Your task to perform on an android device: Go to CNN.com Image 0: 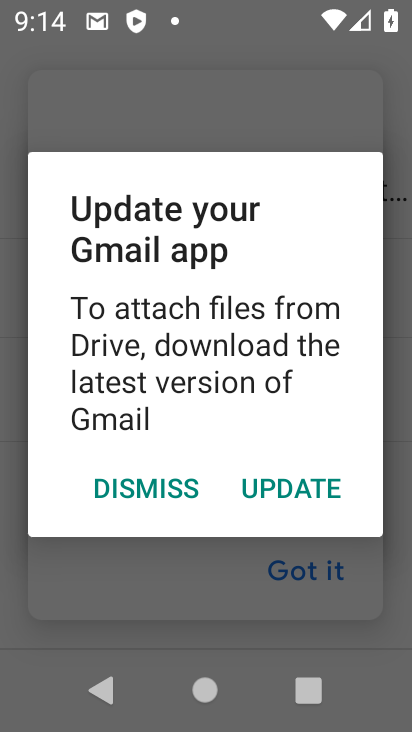
Step 0: press home button
Your task to perform on an android device: Go to CNN.com Image 1: 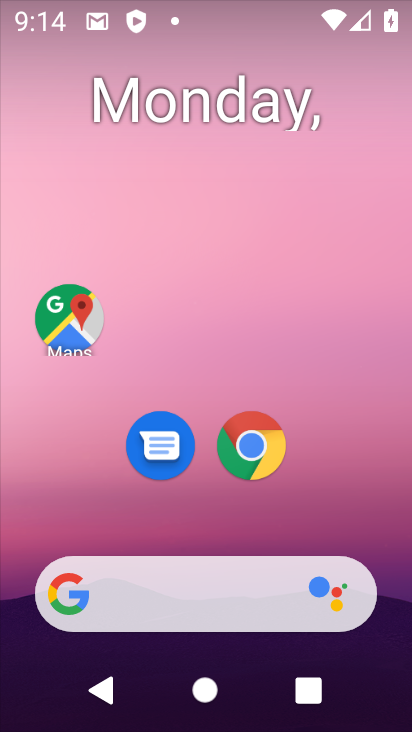
Step 1: click (250, 588)
Your task to perform on an android device: Go to CNN.com Image 2: 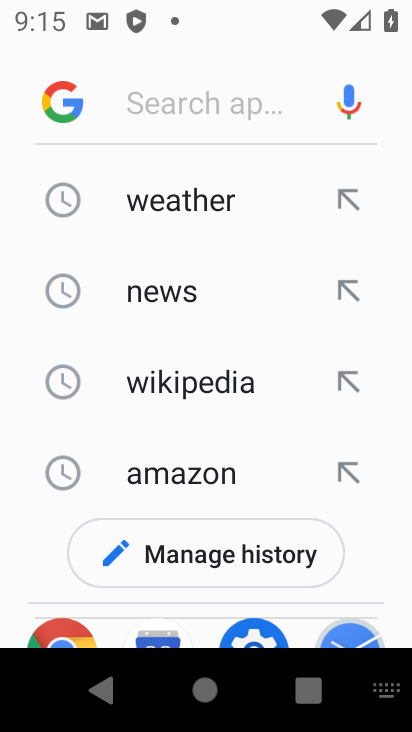
Step 2: type "cnn.com"
Your task to perform on an android device: Go to CNN.com Image 3: 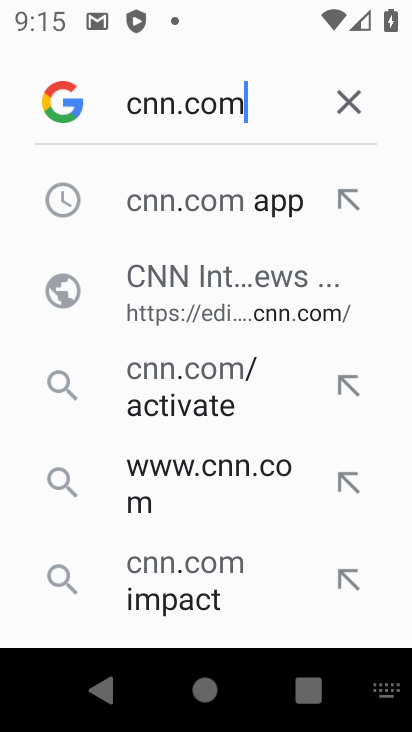
Step 3: click (230, 313)
Your task to perform on an android device: Go to CNN.com Image 4: 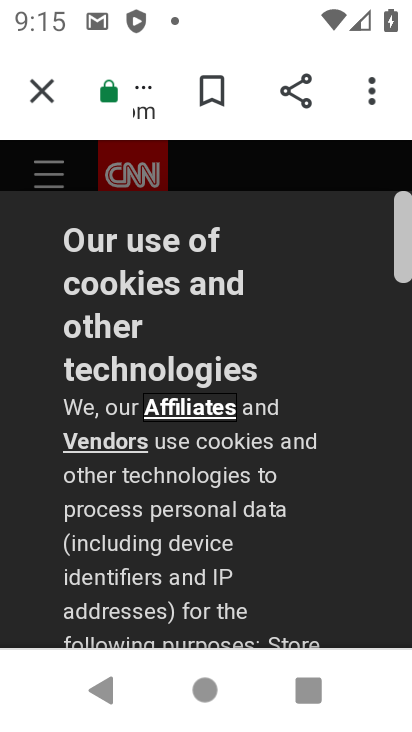
Step 4: task complete